Your task to perform on an android device: Open wifi settings Image 0: 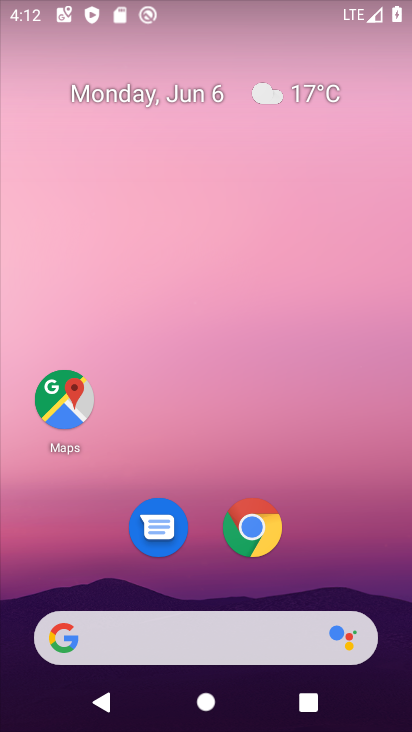
Step 0: drag from (321, 466) to (303, 194)
Your task to perform on an android device: Open wifi settings Image 1: 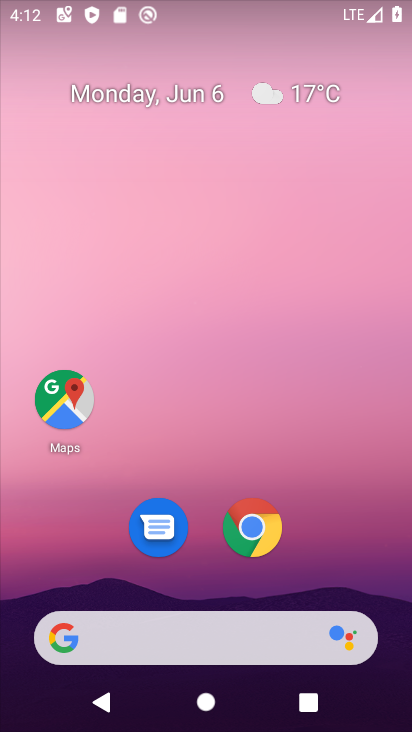
Step 1: drag from (339, 503) to (324, 155)
Your task to perform on an android device: Open wifi settings Image 2: 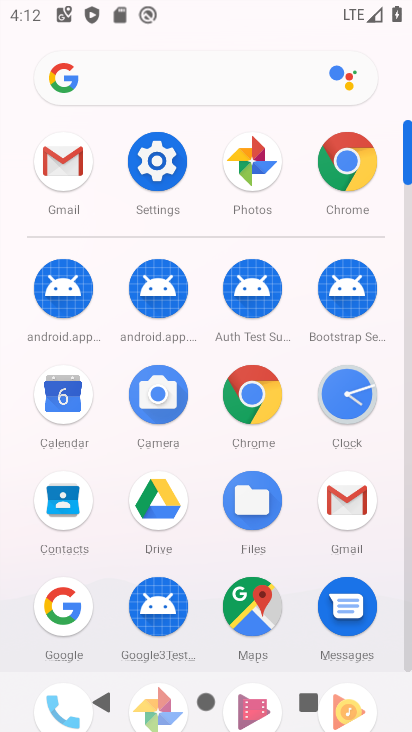
Step 2: click (146, 170)
Your task to perform on an android device: Open wifi settings Image 3: 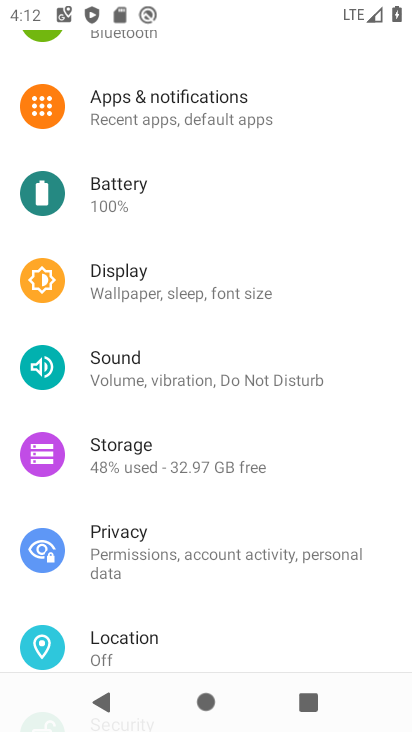
Step 3: drag from (312, 113) to (261, 659)
Your task to perform on an android device: Open wifi settings Image 4: 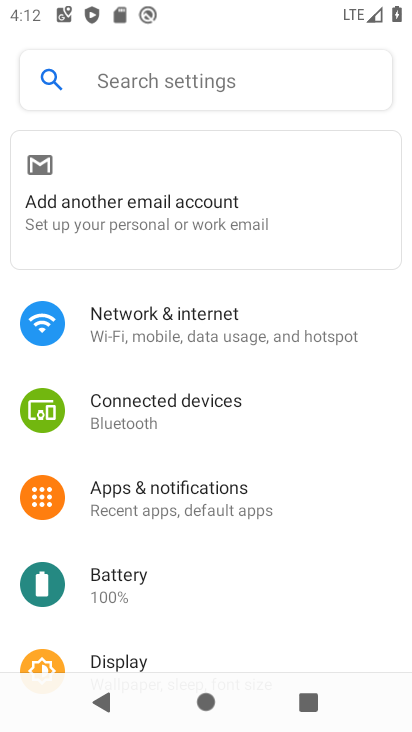
Step 4: click (252, 325)
Your task to perform on an android device: Open wifi settings Image 5: 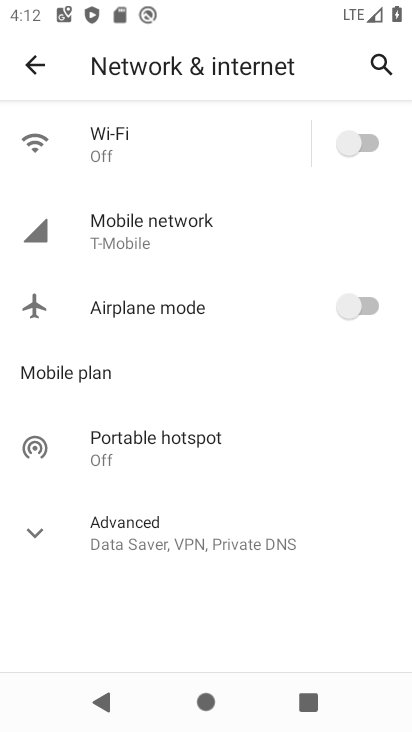
Step 5: click (159, 139)
Your task to perform on an android device: Open wifi settings Image 6: 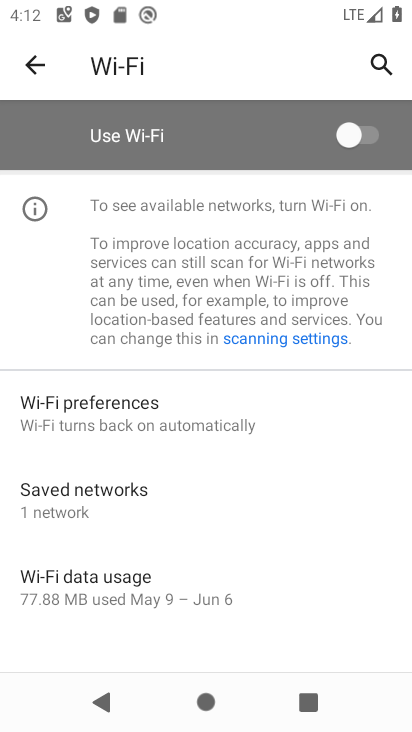
Step 6: task complete